Your task to perform on an android device: uninstall "YouTube Kids" Image 0: 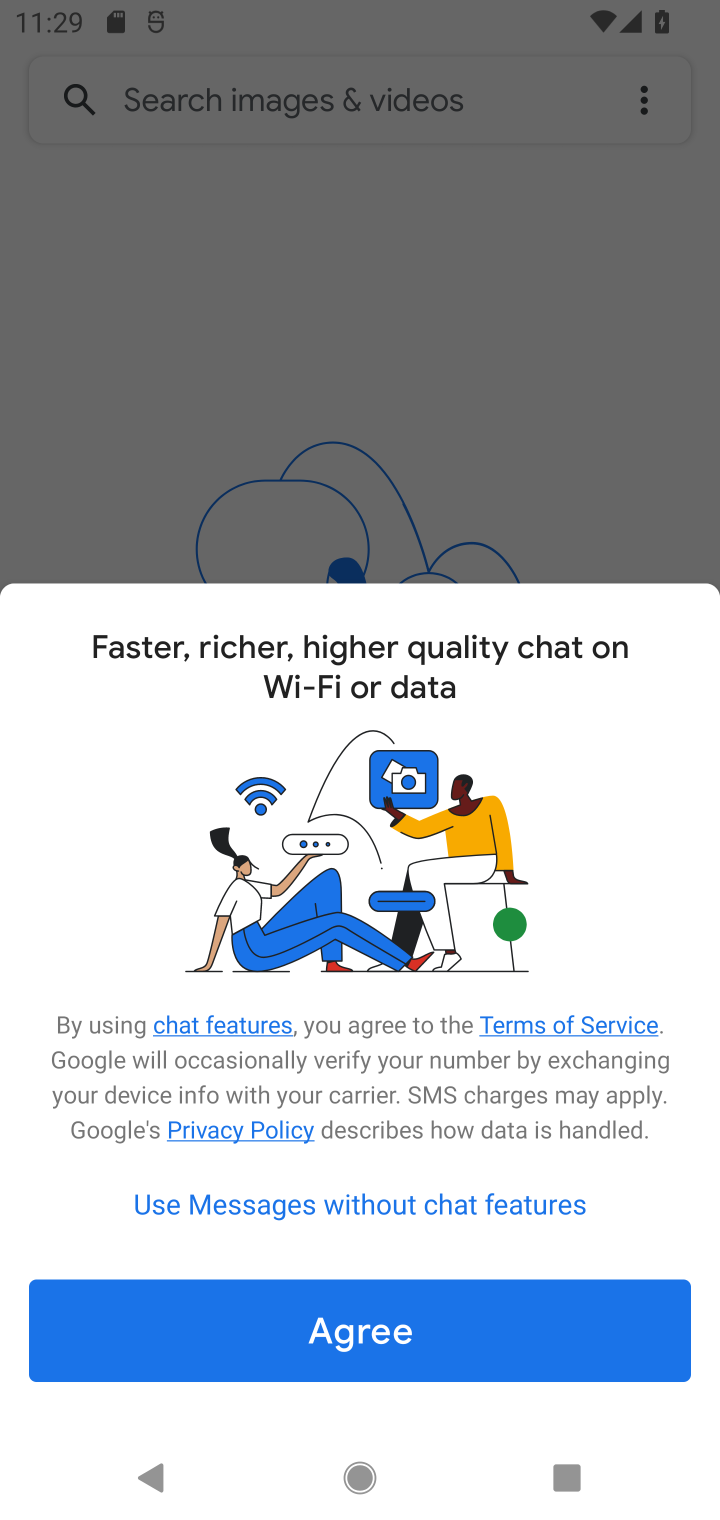
Step 0: press home button
Your task to perform on an android device: uninstall "YouTube Kids" Image 1: 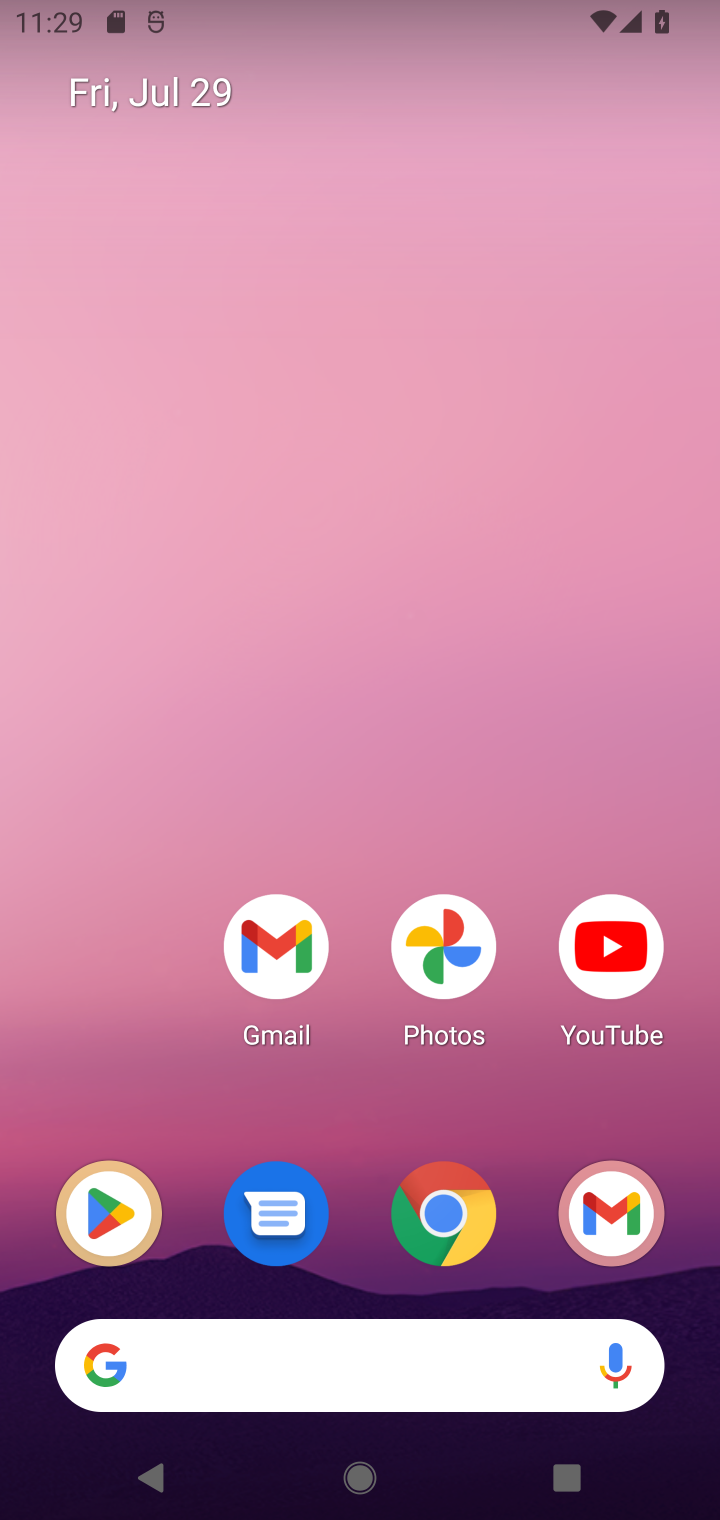
Step 1: press home button
Your task to perform on an android device: uninstall "YouTube Kids" Image 2: 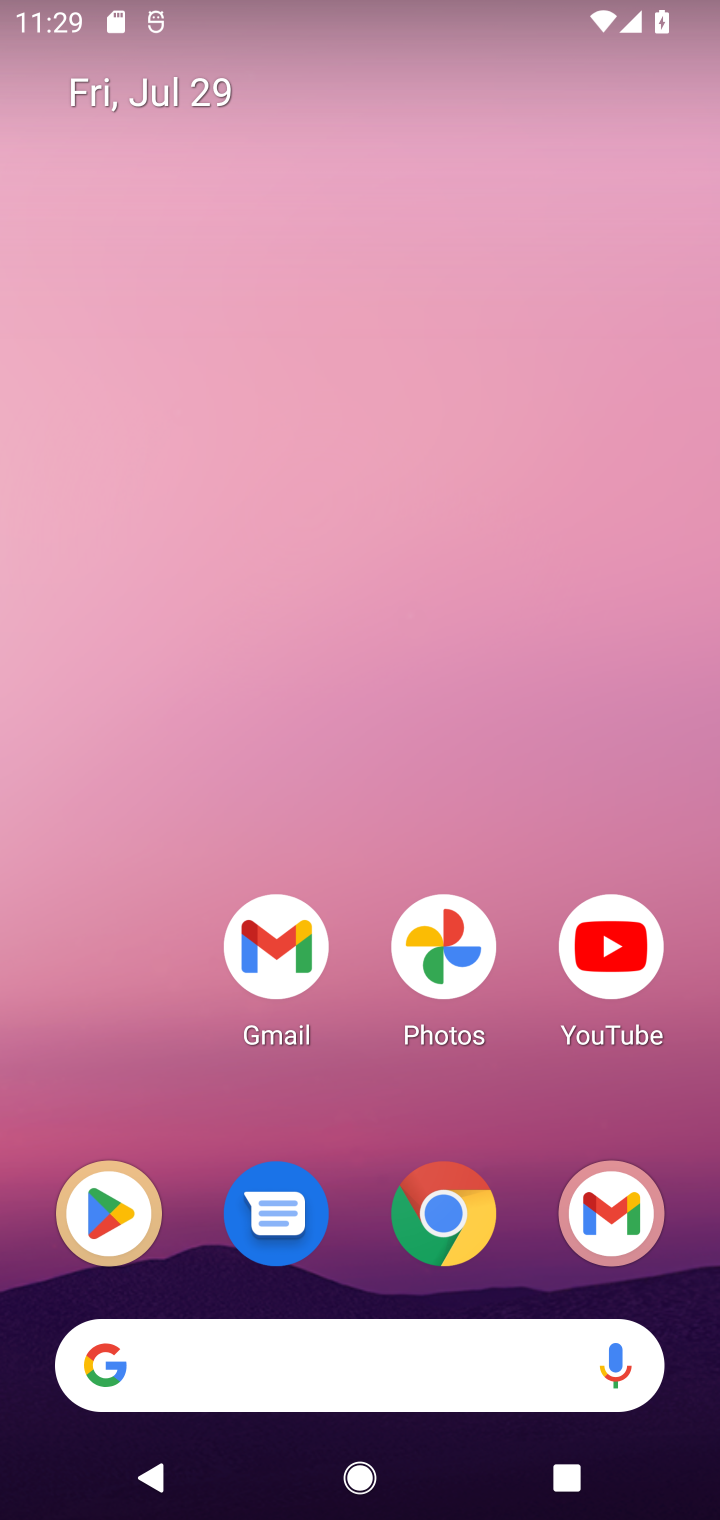
Step 2: click (120, 1212)
Your task to perform on an android device: uninstall "YouTube Kids" Image 3: 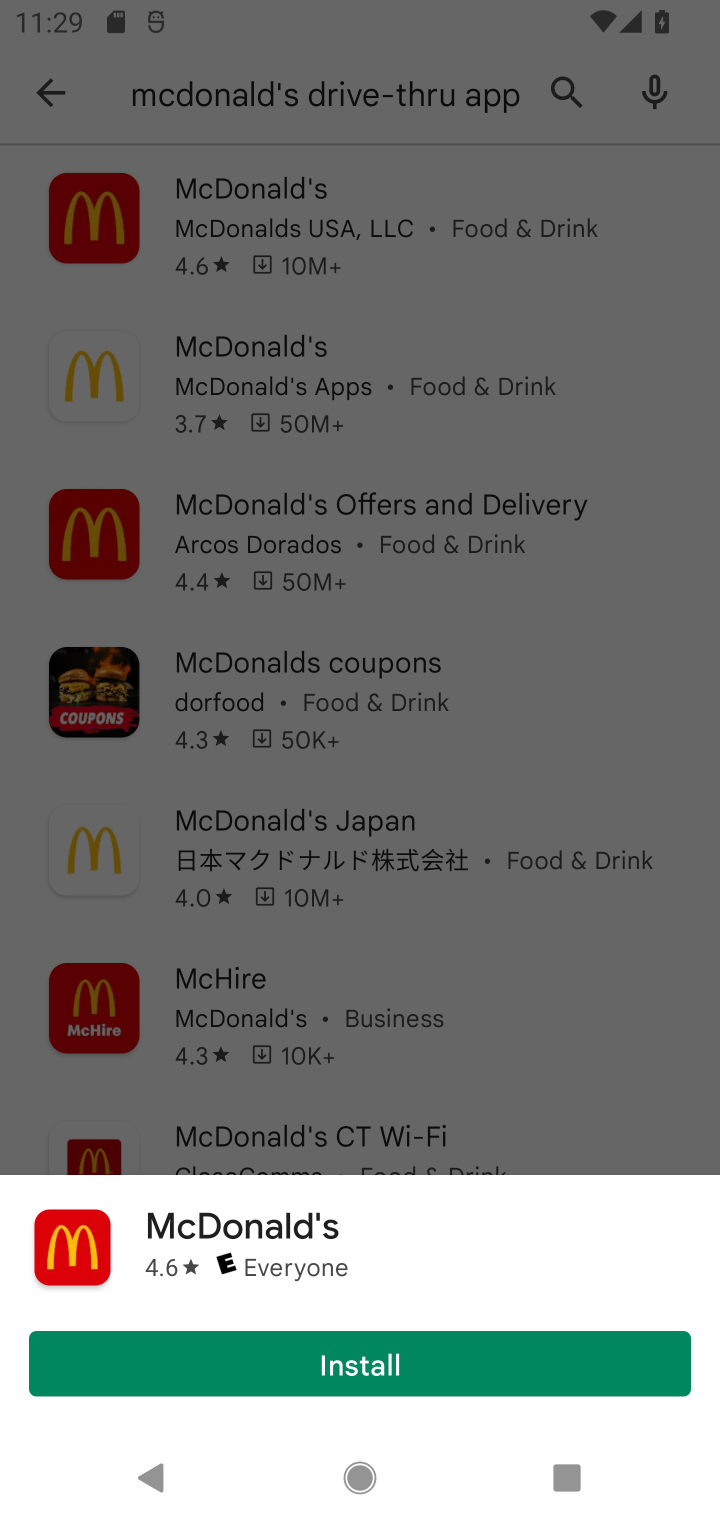
Step 3: click (559, 82)
Your task to perform on an android device: uninstall "YouTube Kids" Image 4: 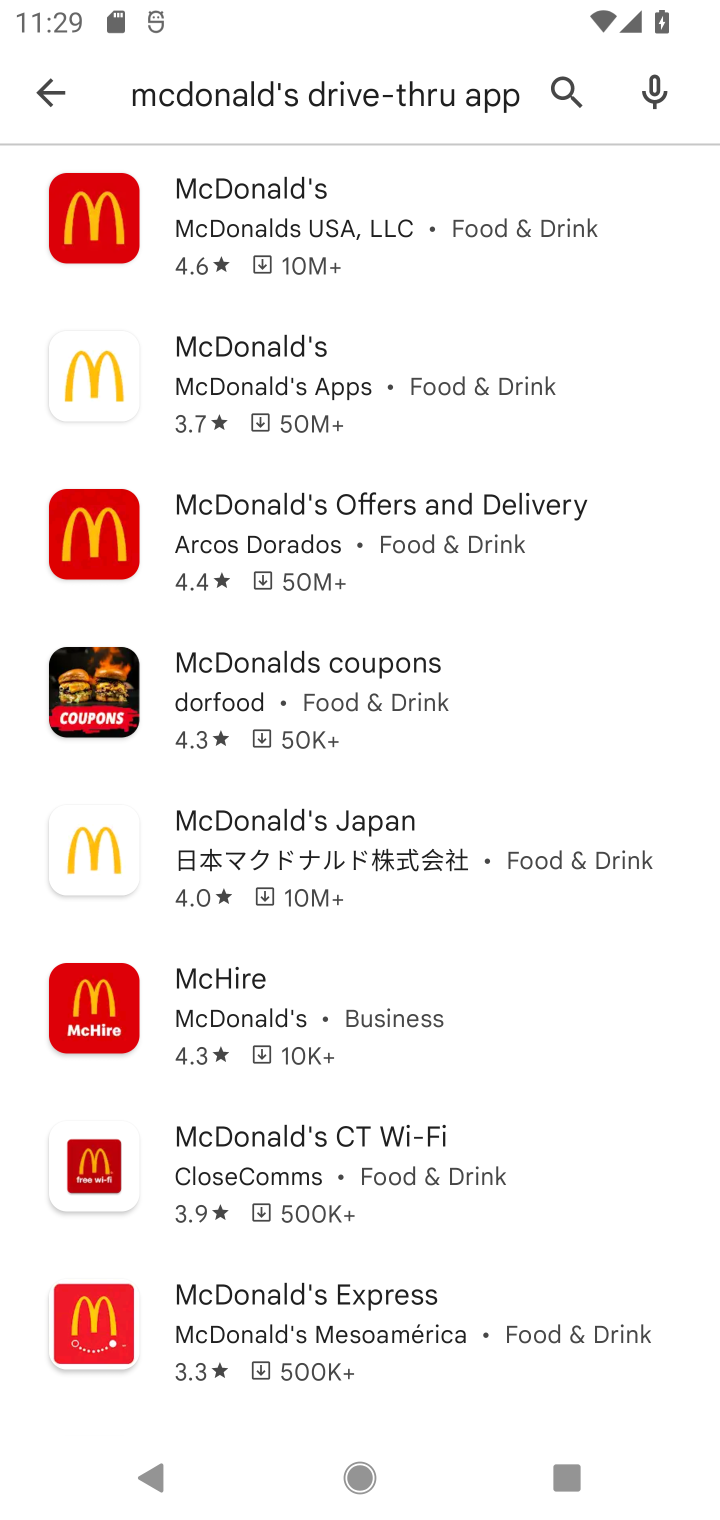
Step 4: click (559, 82)
Your task to perform on an android device: uninstall "YouTube Kids" Image 5: 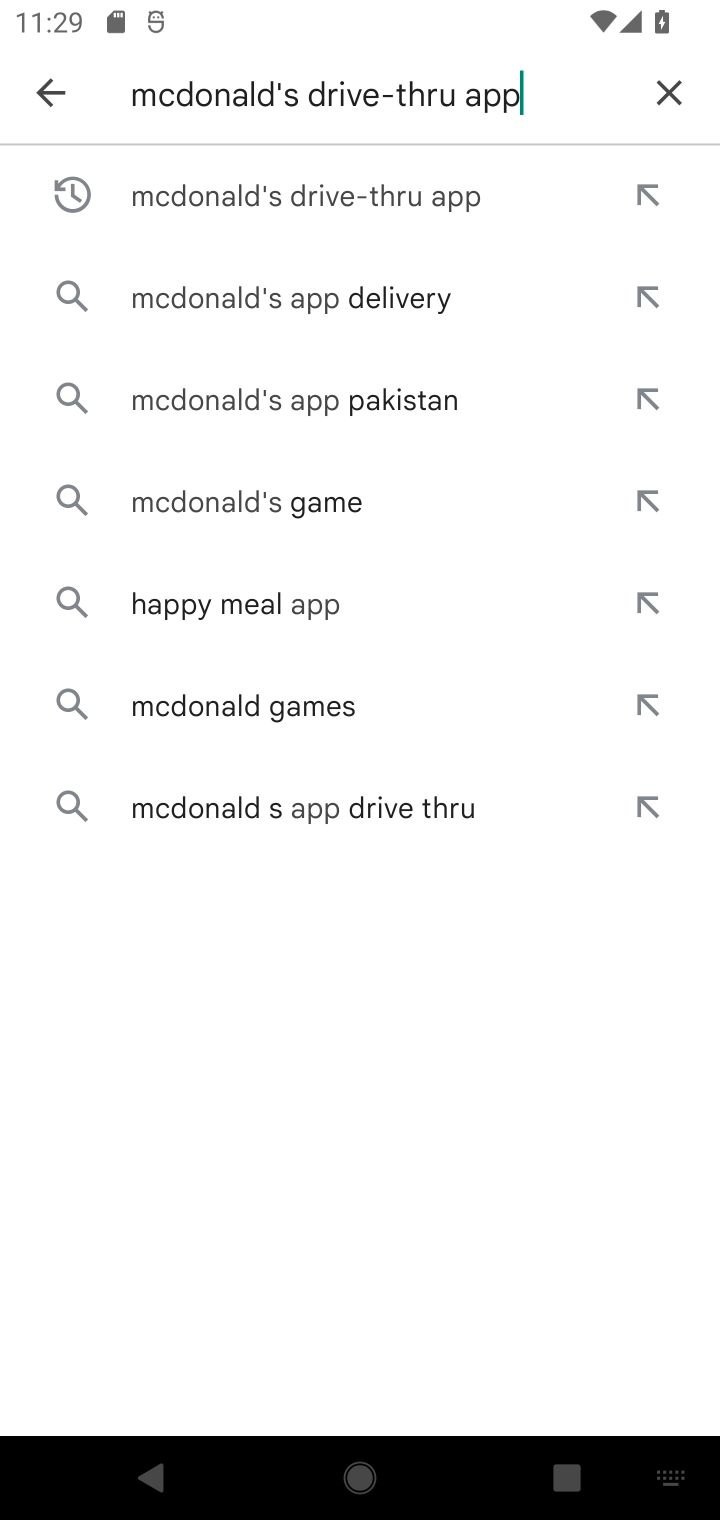
Step 5: click (672, 95)
Your task to perform on an android device: uninstall "YouTube Kids" Image 6: 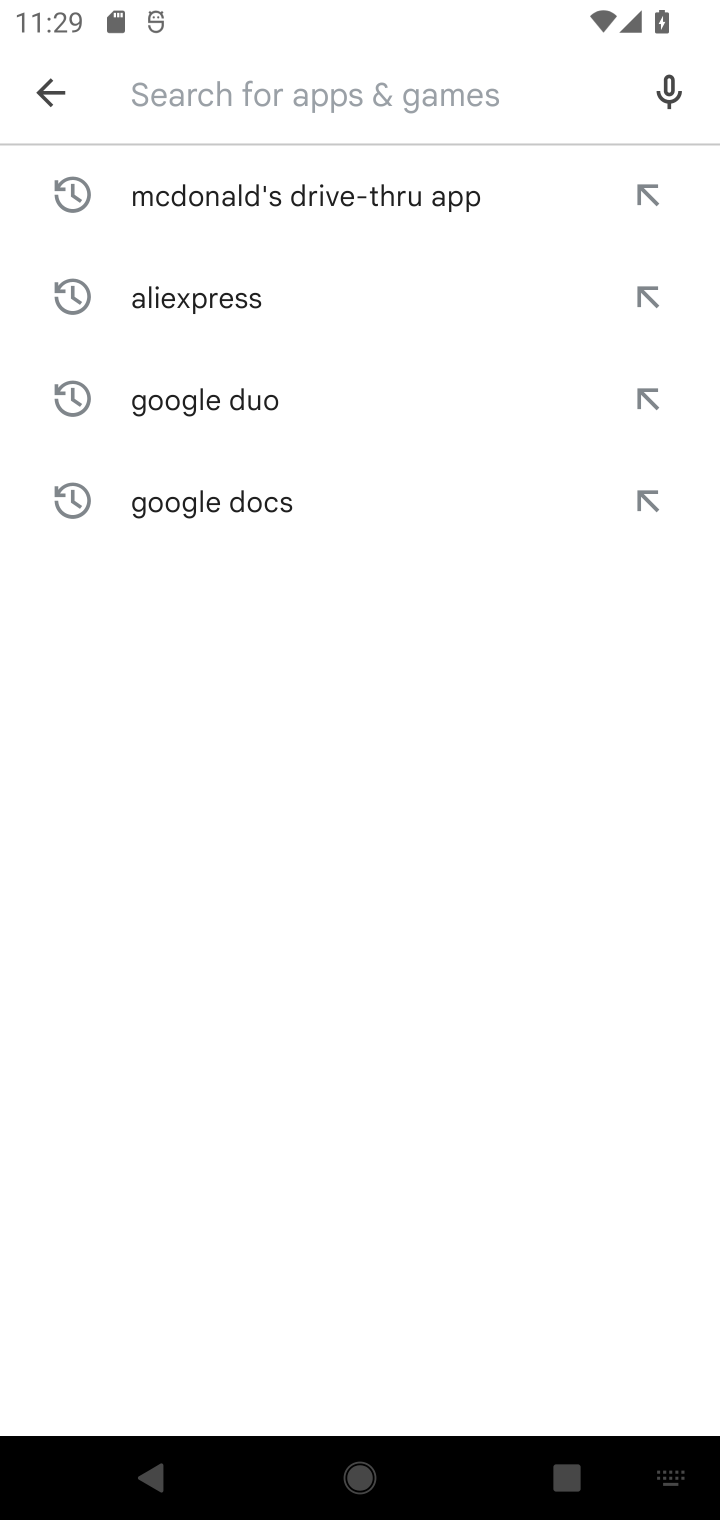
Step 6: type "YouTube Kids"
Your task to perform on an android device: uninstall "YouTube Kids" Image 7: 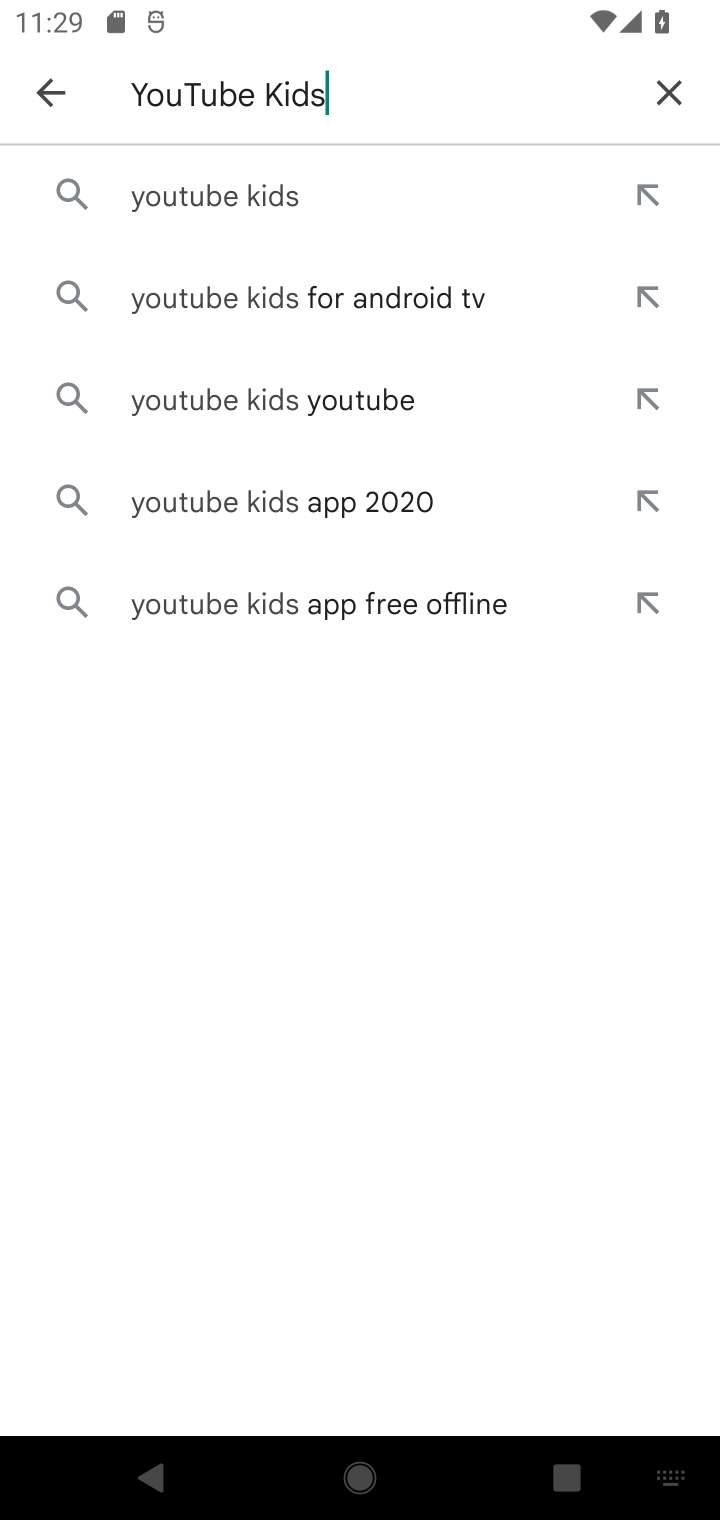
Step 7: click (247, 194)
Your task to perform on an android device: uninstall "YouTube Kids" Image 8: 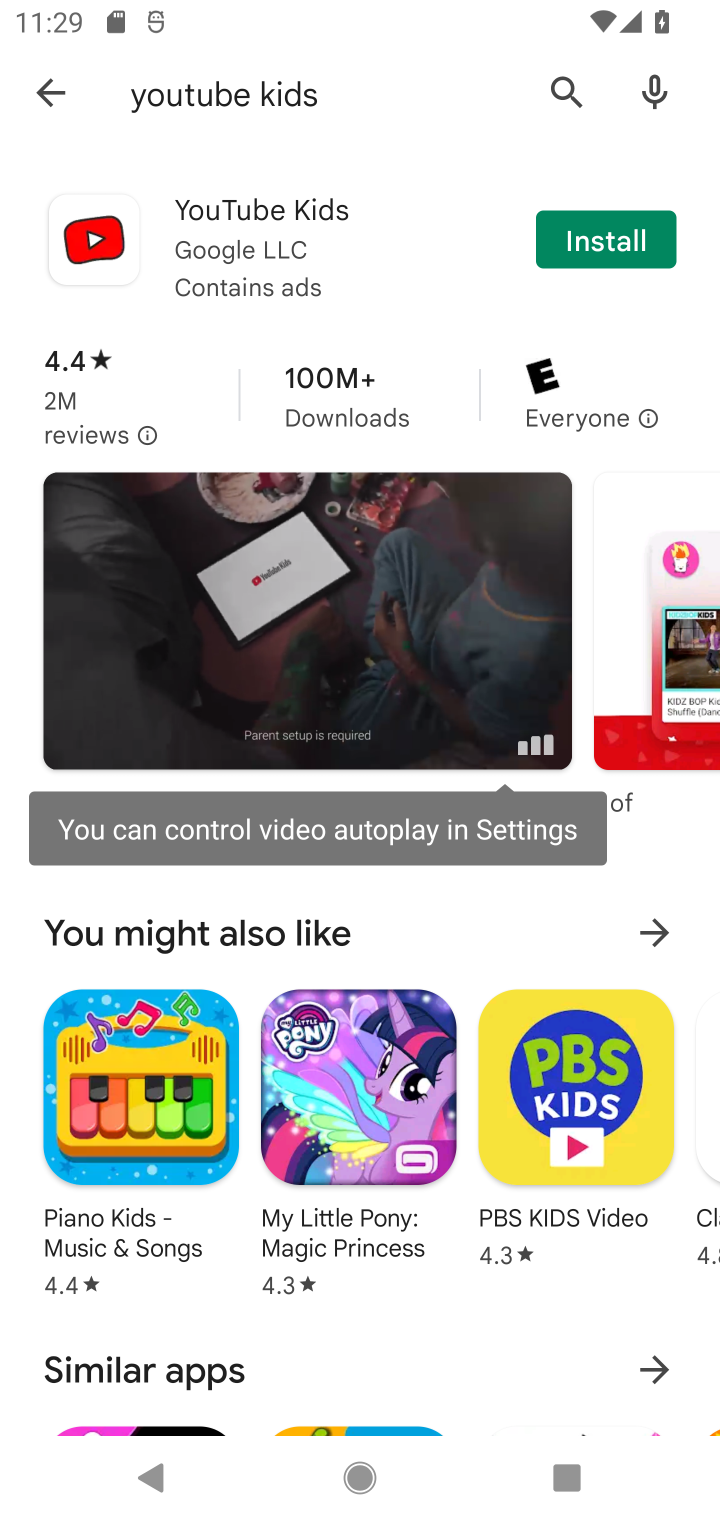
Step 8: task complete